Your task to perform on an android device: turn notification dots on Image 0: 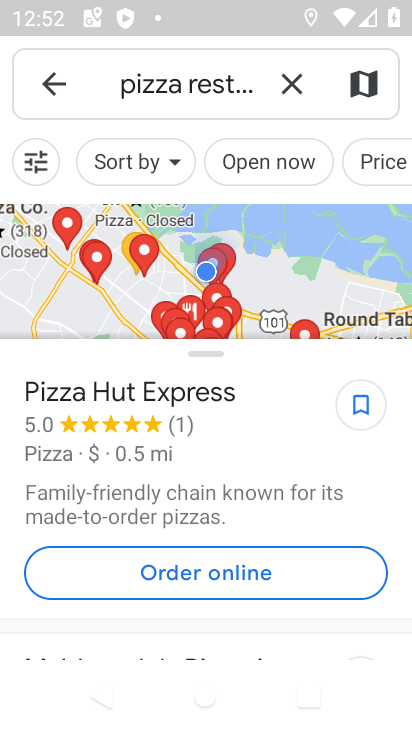
Step 0: press home button
Your task to perform on an android device: turn notification dots on Image 1: 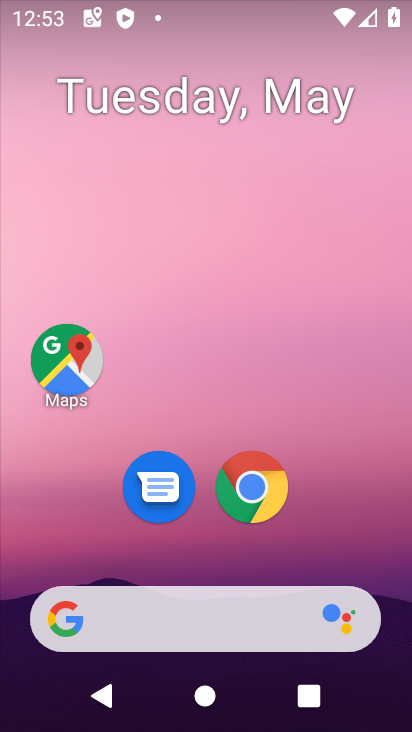
Step 1: drag from (307, 511) to (313, 83)
Your task to perform on an android device: turn notification dots on Image 2: 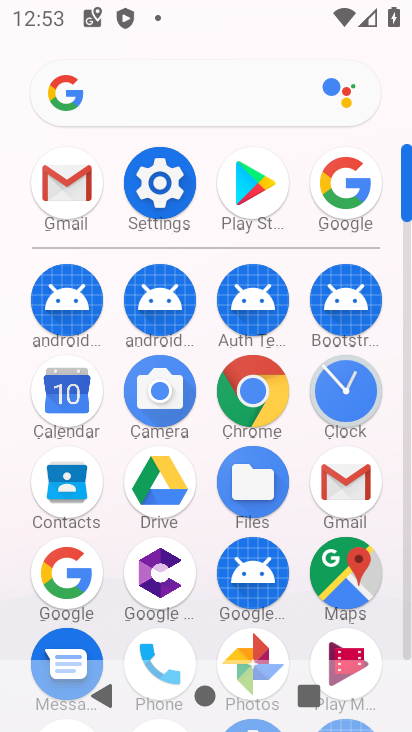
Step 2: click (169, 192)
Your task to perform on an android device: turn notification dots on Image 3: 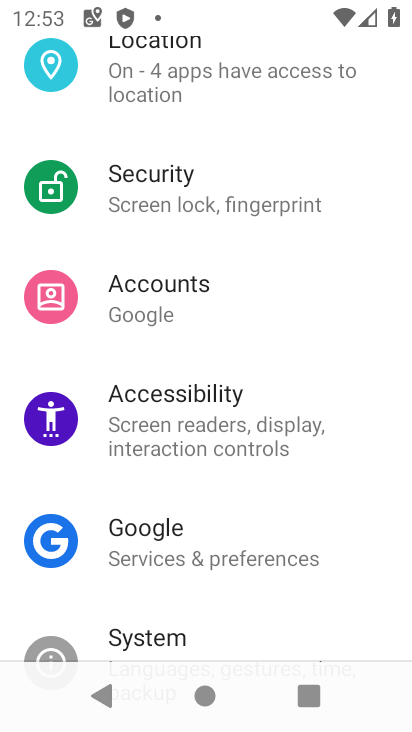
Step 3: drag from (290, 195) to (300, 482)
Your task to perform on an android device: turn notification dots on Image 4: 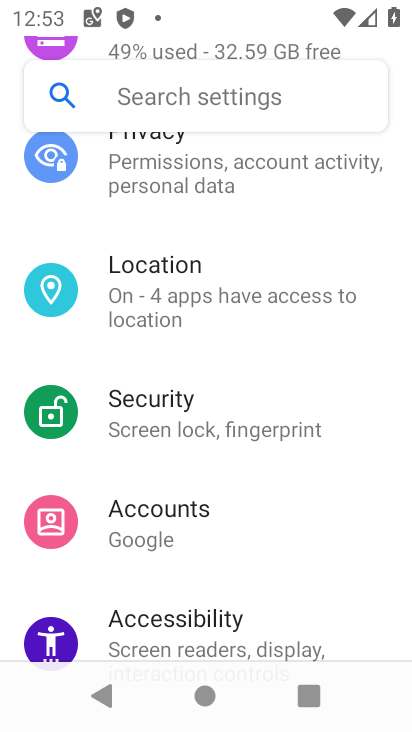
Step 4: drag from (223, 247) to (239, 463)
Your task to perform on an android device: turn notification dots on Image 5: 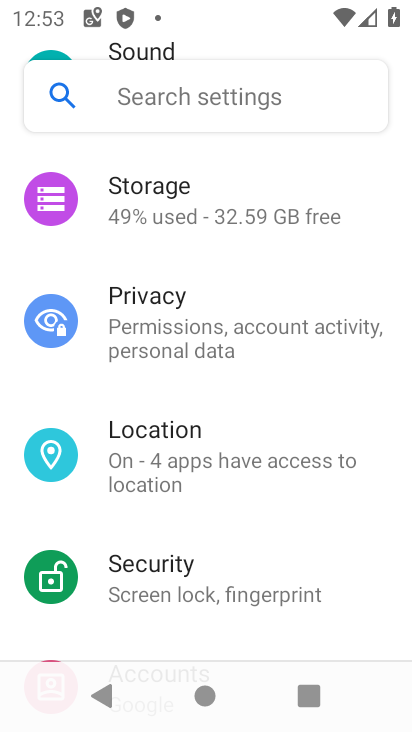
Step 5: drag from (273, 199) to (214, 647)
Your task to perform on an android device: turn notification dots on Image 6: 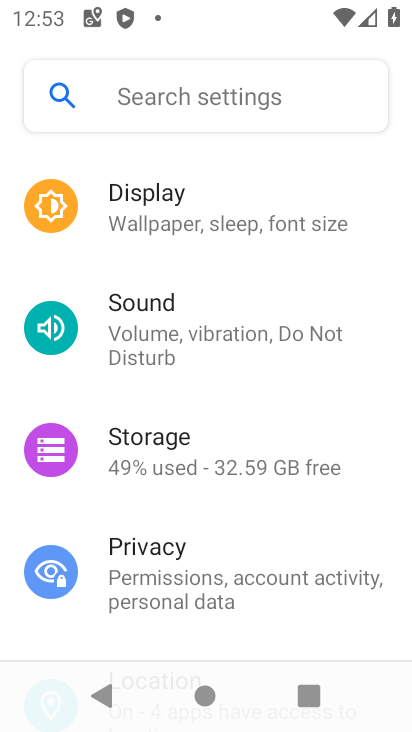
Step 6: drag from (194, 190) to (223, 477)
Your task to perform on an android device: turn notification dots on Image 7: 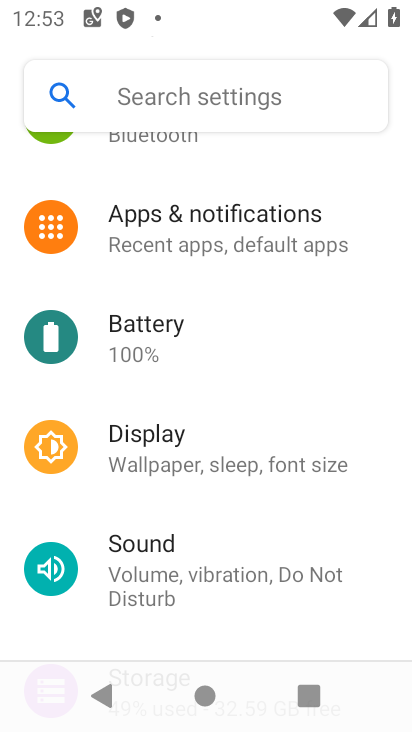
Step 7: click (206, 203)
Your task to perform on an android device: turn notification dots on Image 8: 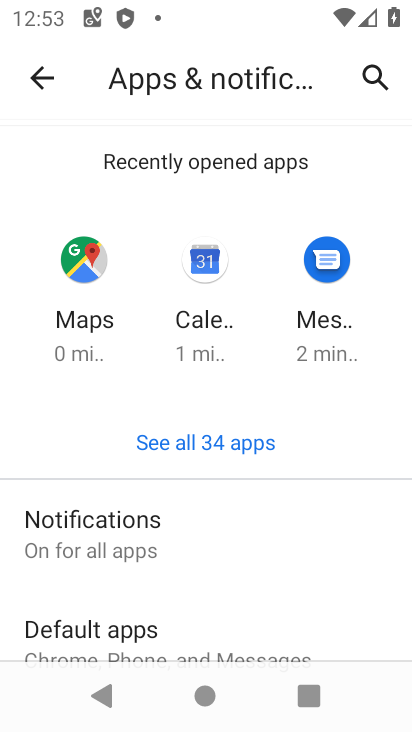
Step 8: click (158, 540)
Your task to perform on an android device: turn notification dots on Image 9: 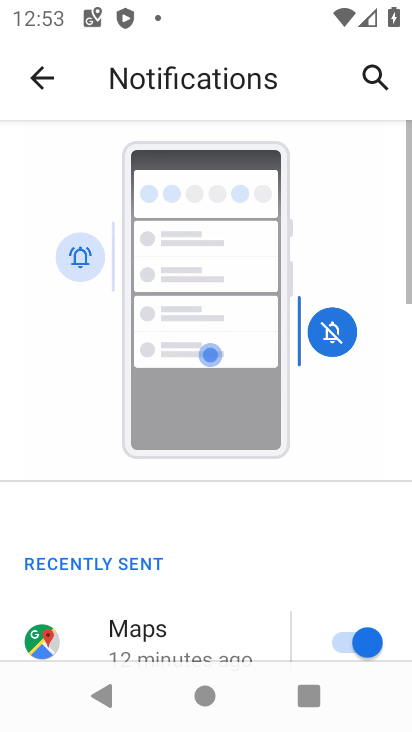
Step 9: drag from (290, 578) to (308, 194)
Your task to perform on an android device: turn notification dots on Image 10: 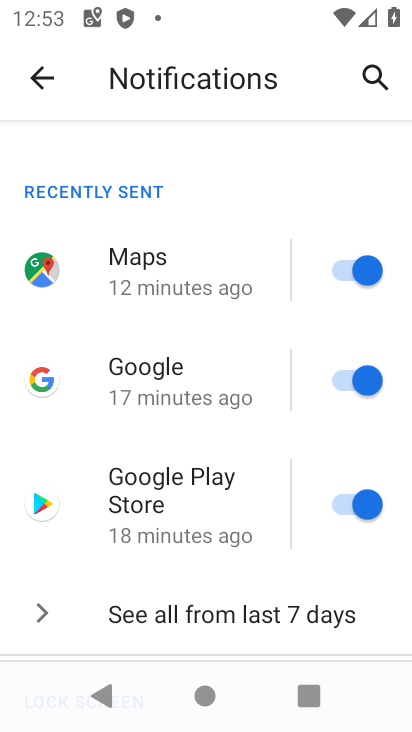
Step 10: drag from (238, 572) to (228, 261)
Your task to perform on an android device: turn notification dots on Image 11: 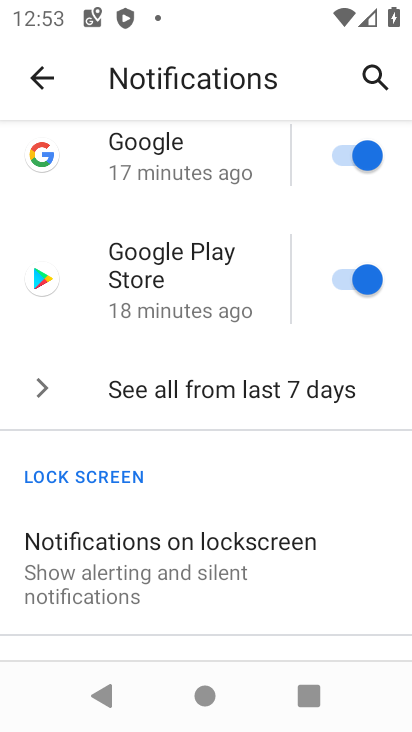
Step 11: drag from (205, 607) to (209, 327)
Your task to perform on an android device: turn notification dots on Image 12: 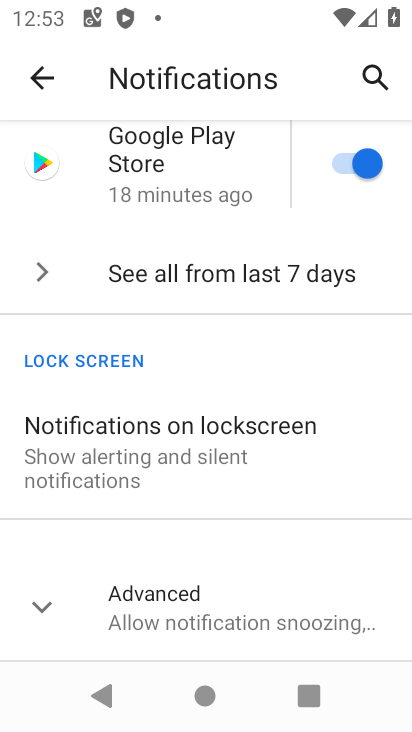
Step 12: click (221, 603)
Your task to perform on an android device: turn notification dots on Image 13: 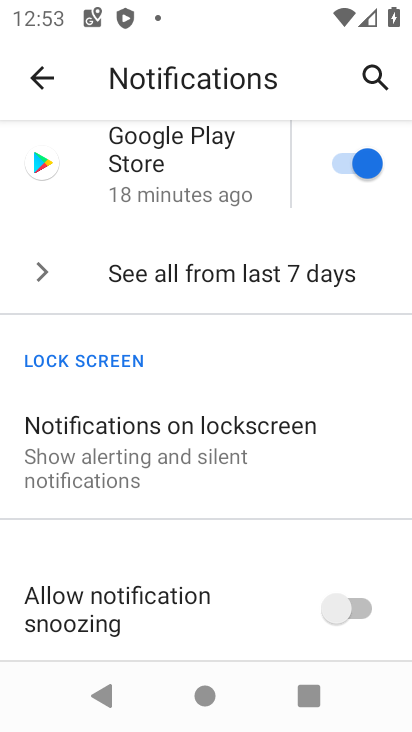
Step 13: drag from (197, 613) to (181, 321)
Your task to perform on an android device: turn notification dots on Image 14: 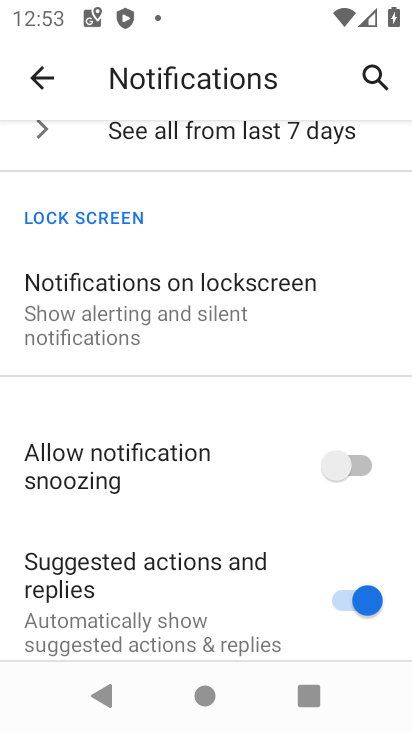
Step 14: drag from (188, 585) to (187, 244)
Your task to perform on an android device: turn notification dots on Image 15: 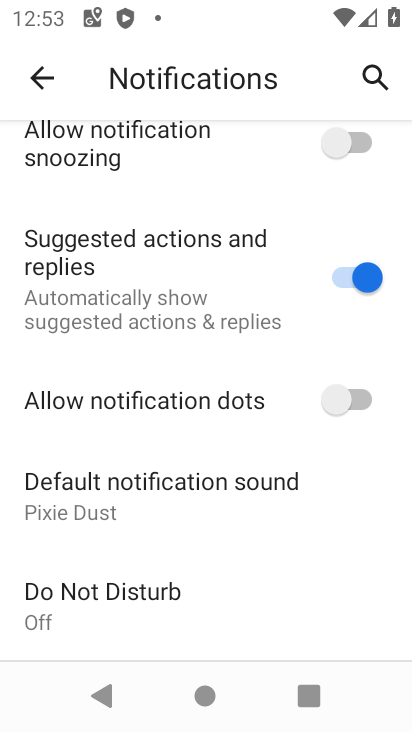
Step 15: click (366, 397)
Your task to perform on an android device: turn notification dots on Image 16: 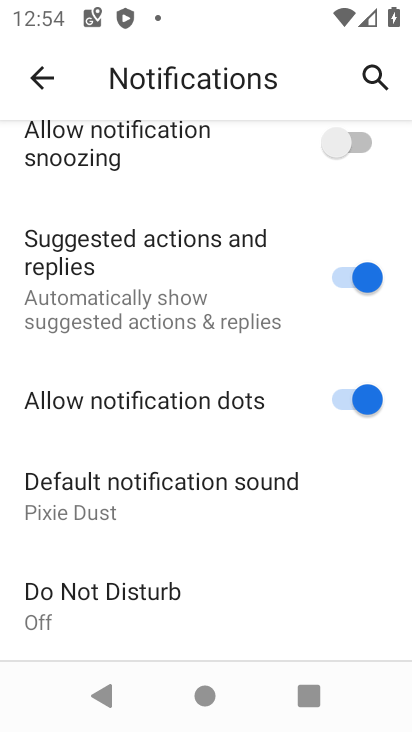
Step 16: task complete